Your task to perform on an android device: Clear the cart on newegg. Add usb-c to usb-b to the cart on newegg, then select checkout. Image 0: 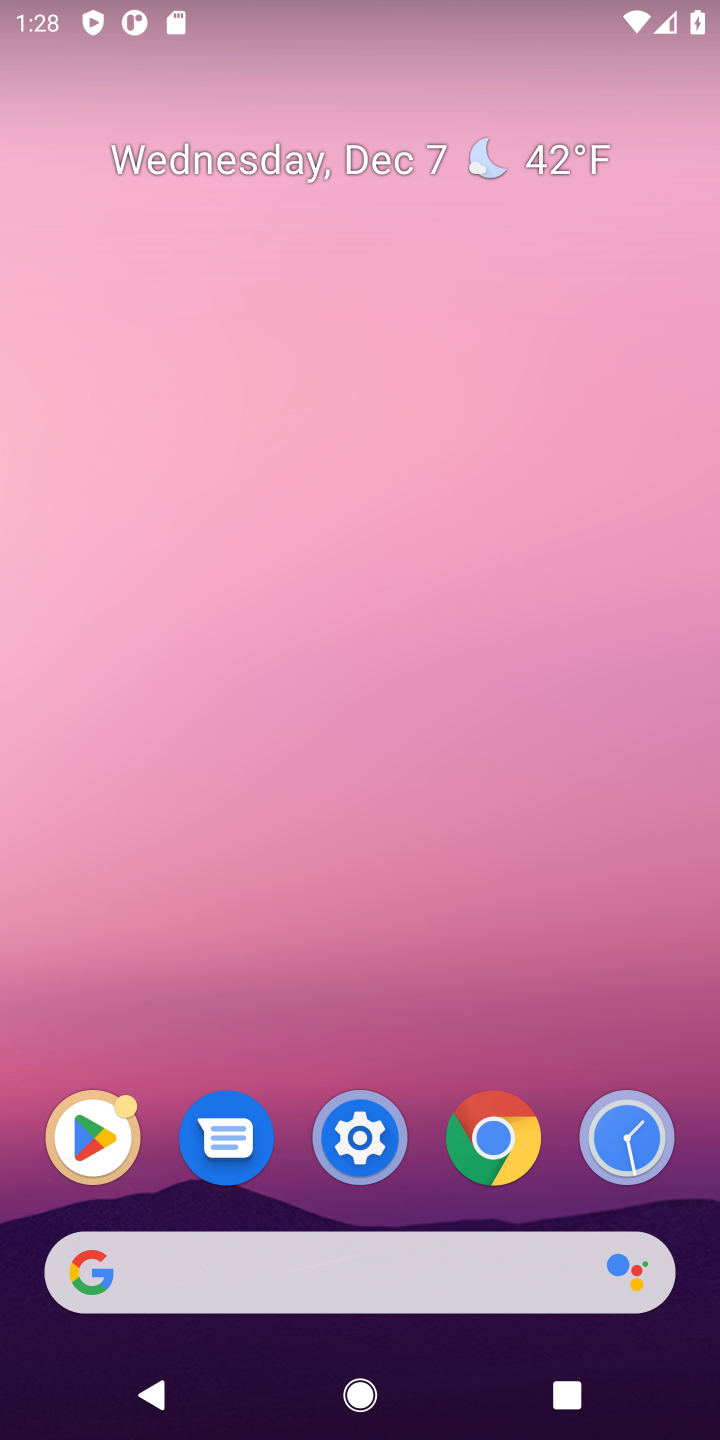
Step 0: click (379, 1311)
Your task to perform on an android device: Clear the cart on newegg. Add usb-c to usb-b to the cart on newegg, then select checkout. Image 1: 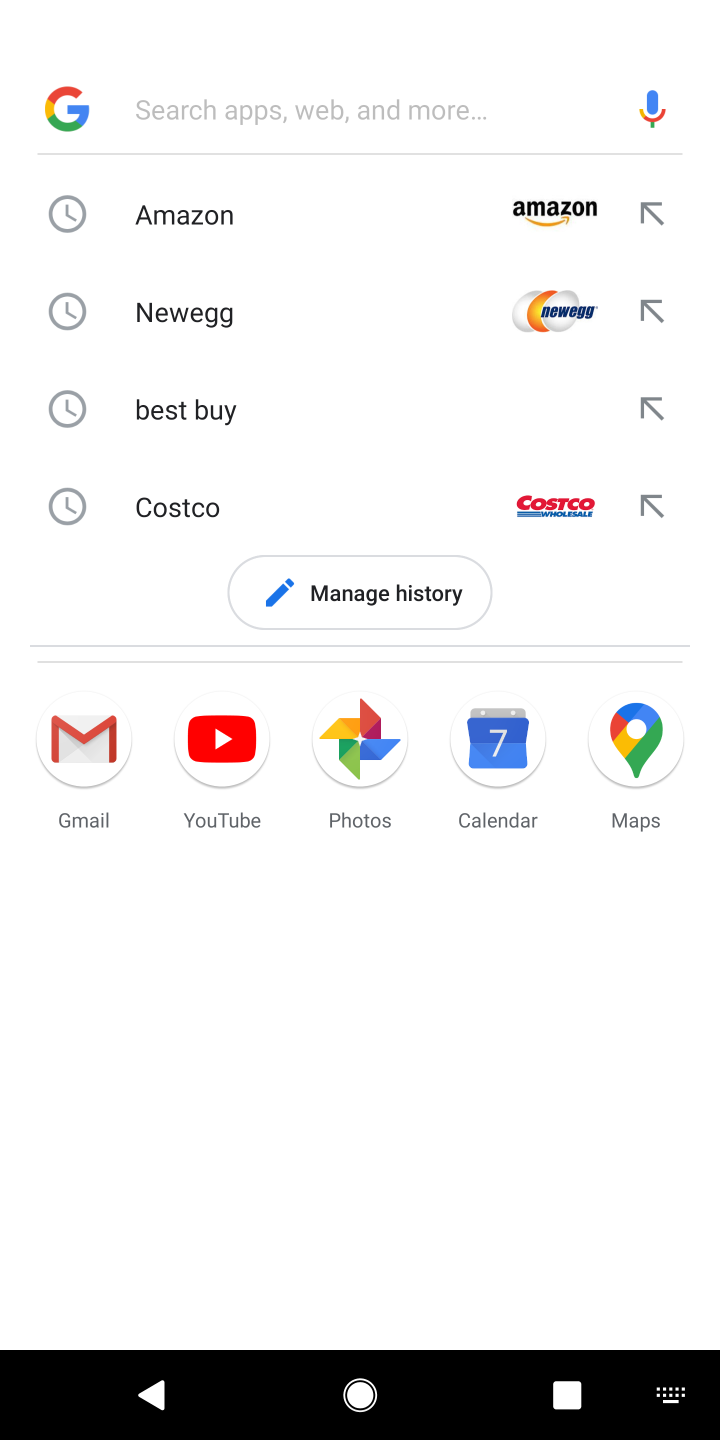
Step 1: type "newegg"
Your task to perform on an android device: Clear the cart on newegg. Add usb-c to usb-b to the cart on newegg, then select checkout. Image 2: 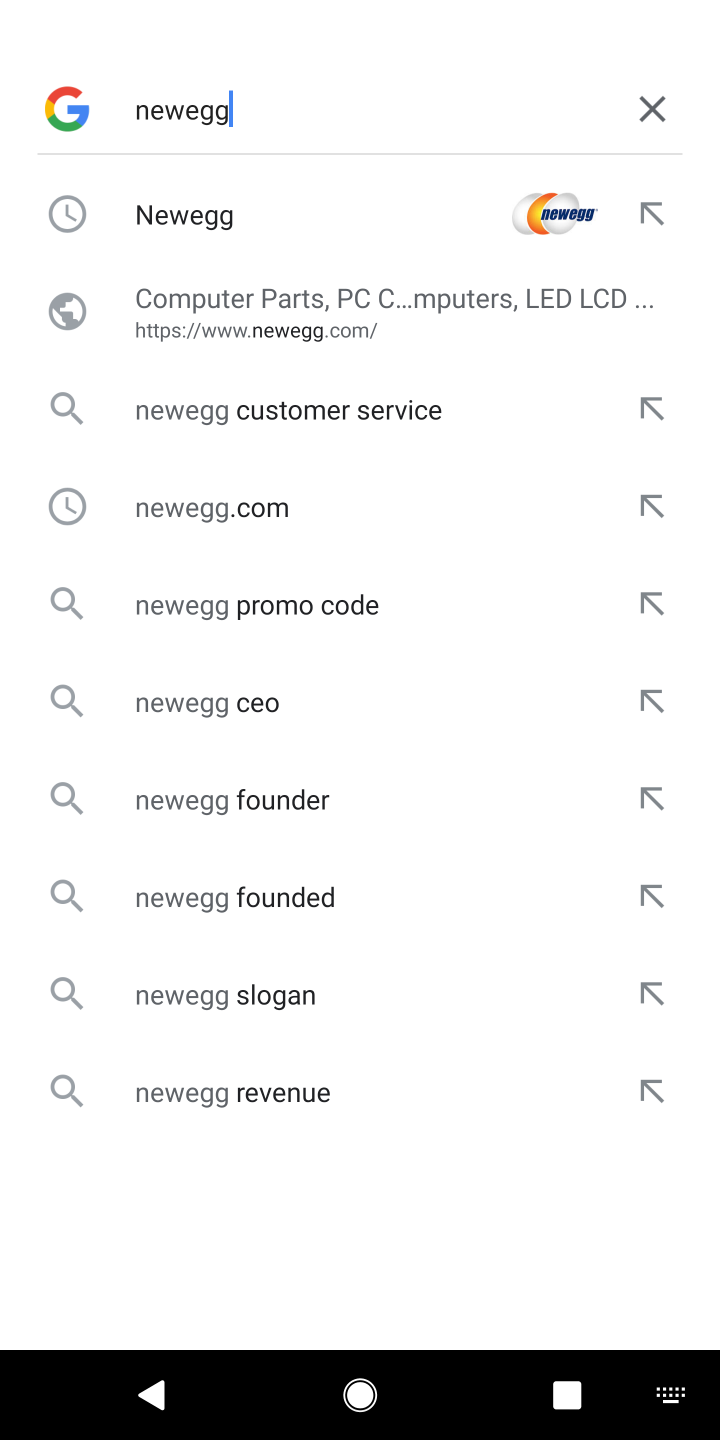
Step 2: click (197, 179)
Your task to perform on an android device: Clear the cart on newegg. Add usb-c to usb-b to the cart on newegg, then select checkout. Image 3: 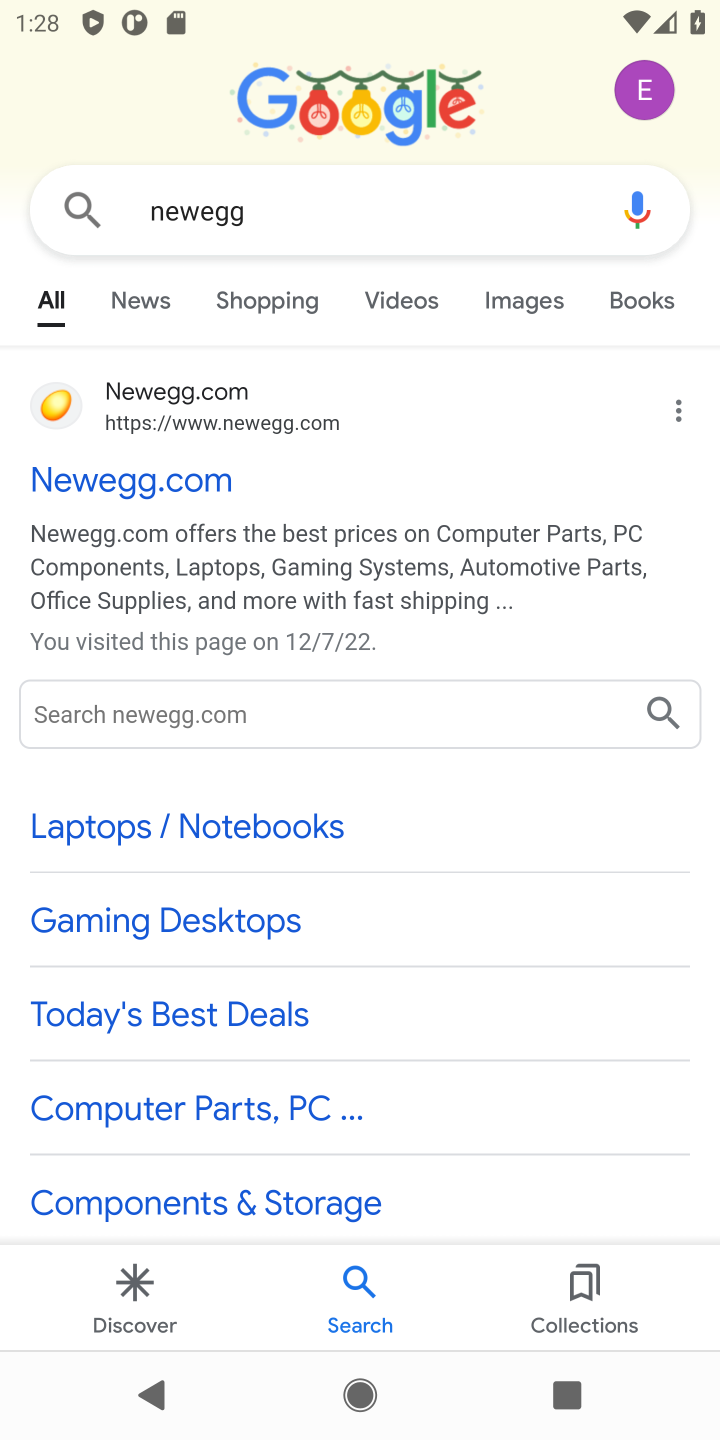
Step 3: click (164, 486)
Your task to perform on an android device: Clear the cart on newegg. Add usb-c to usb-b to the cart on newegg, then select checkout. Image 4: 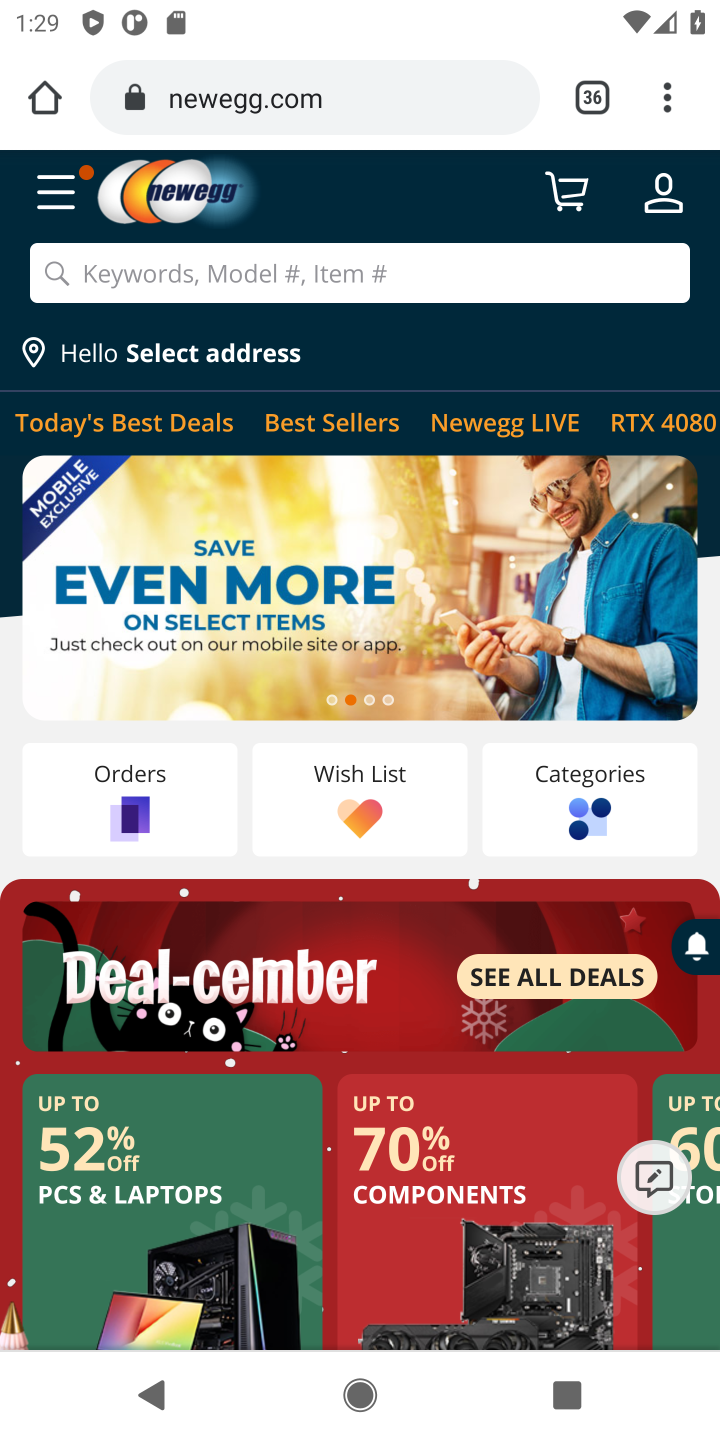
Step 4: click (212, 267)
Your task to perform on an android device: Clear the cart on newegg. Add usb-c to usb-b to the cart on newegg, then select checkout. Image 5: 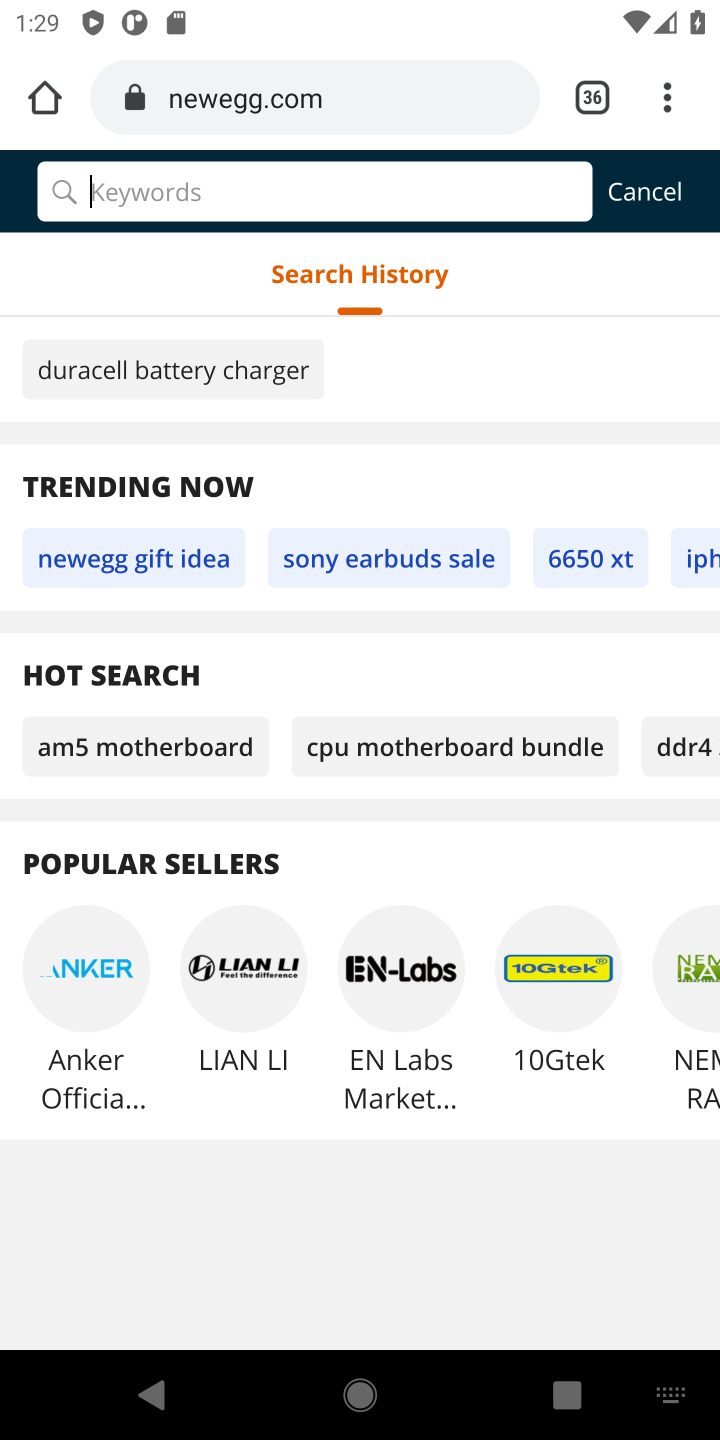
Step 5: type "usb-c to usb-b"
Your task to perform on an android device: Clear the cart on newegg. Add usb-c to usb-b to the cart on newegg, then select checkout. Image 6: 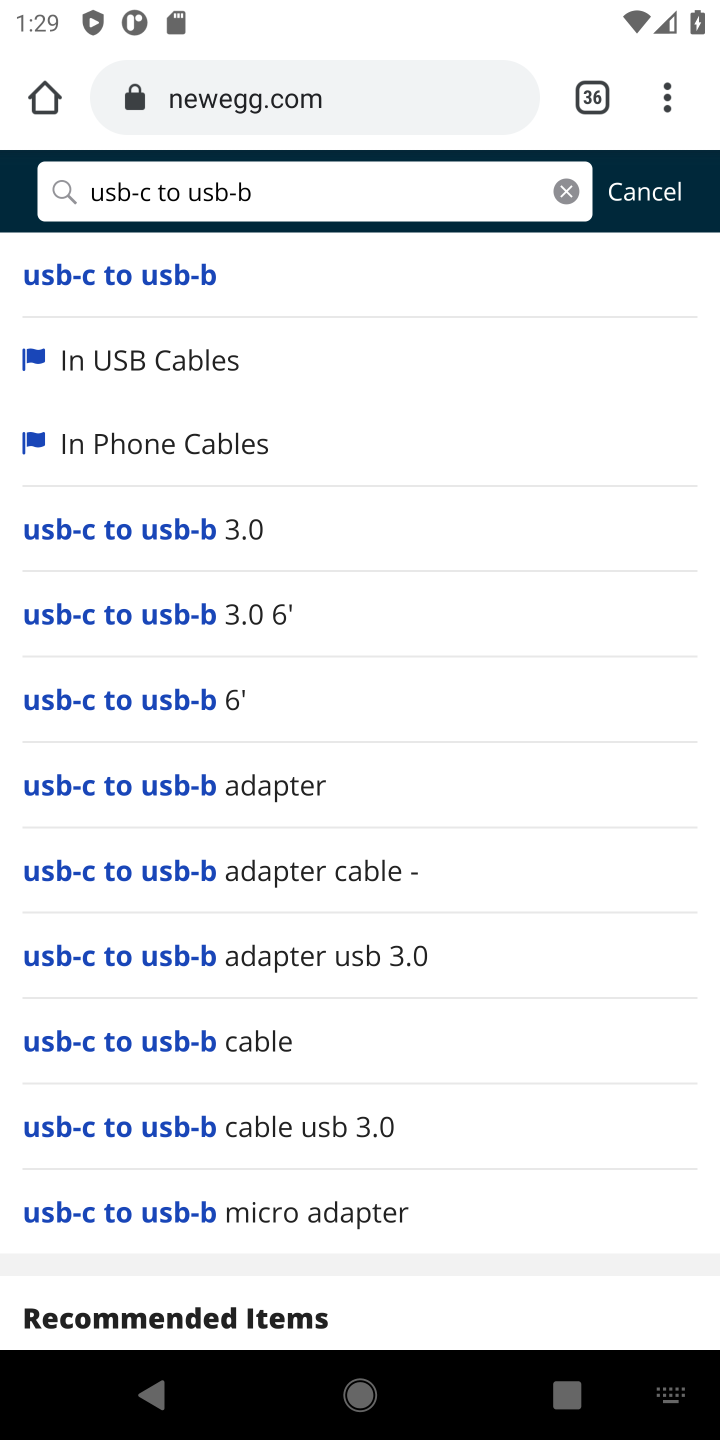
Step 6: click (257, 279)
Your task to perform on an android device: Clear the cart on newegg. Add usb-c to usb-b to the cart on newegg, then select checkout. Image 7: 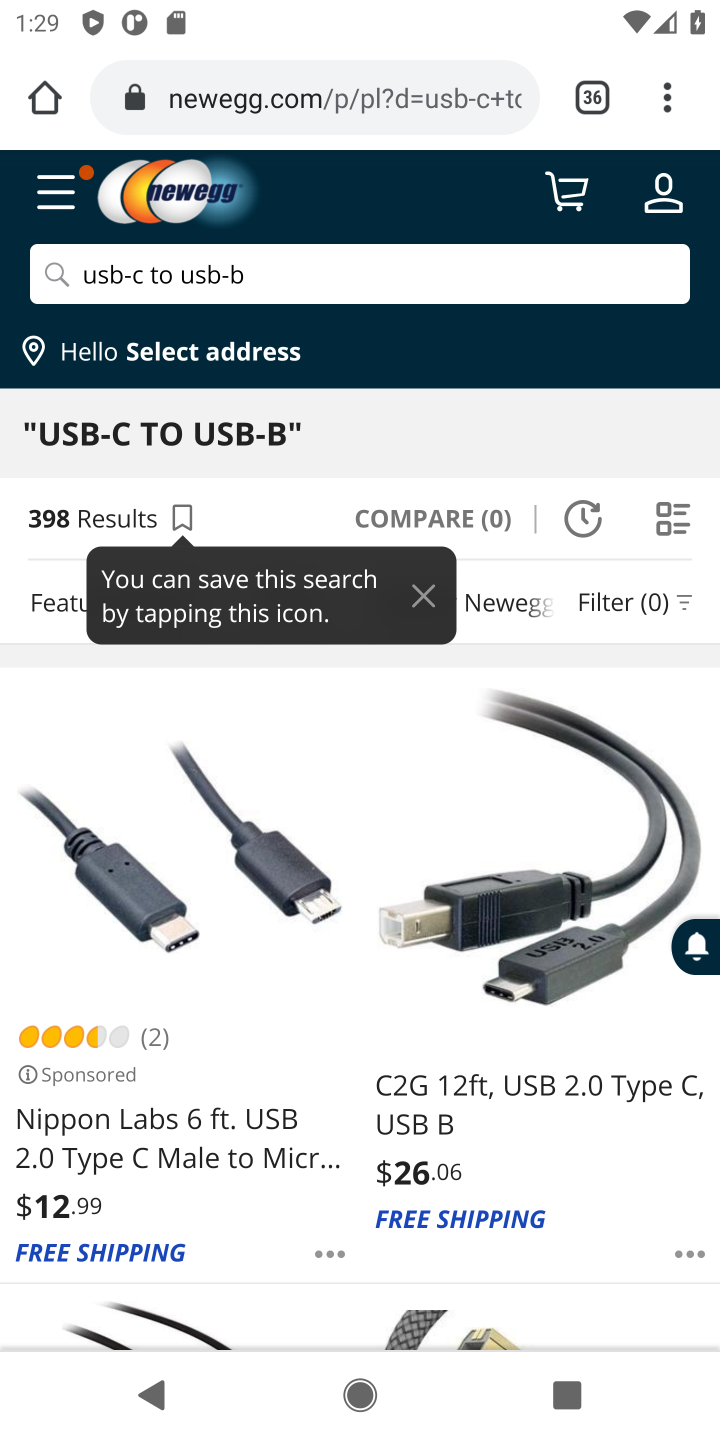
Step 7: click (202, 1059)
Your task to perform on an android device: Clear the cart on newegg. Add usb-c to usb-b to the cart on newegg, then select checkout. Image 8: 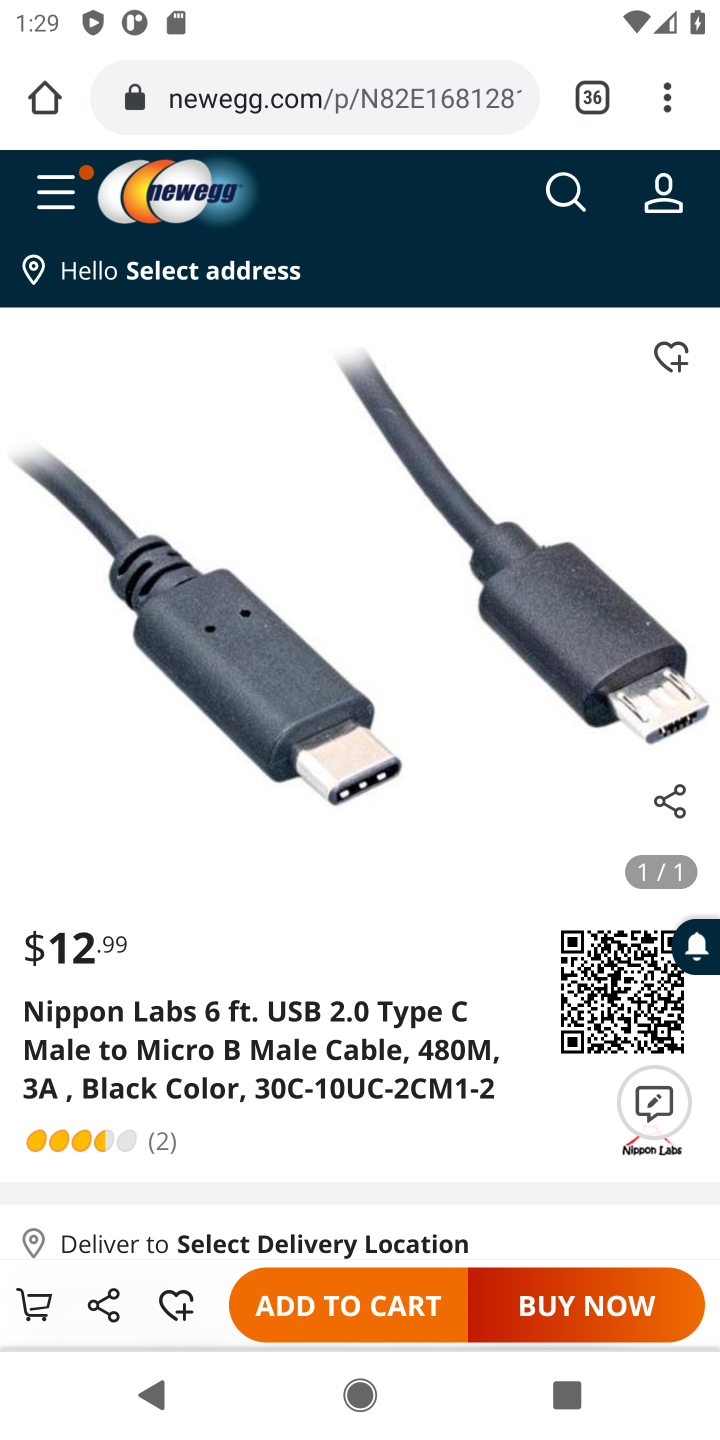
Step 8: click (299, 1307)
Your task to perform on an android device: Clear the cart on newegg. Add usb-c to usb-b to the cart on newegg, then select checkout. Image 9: 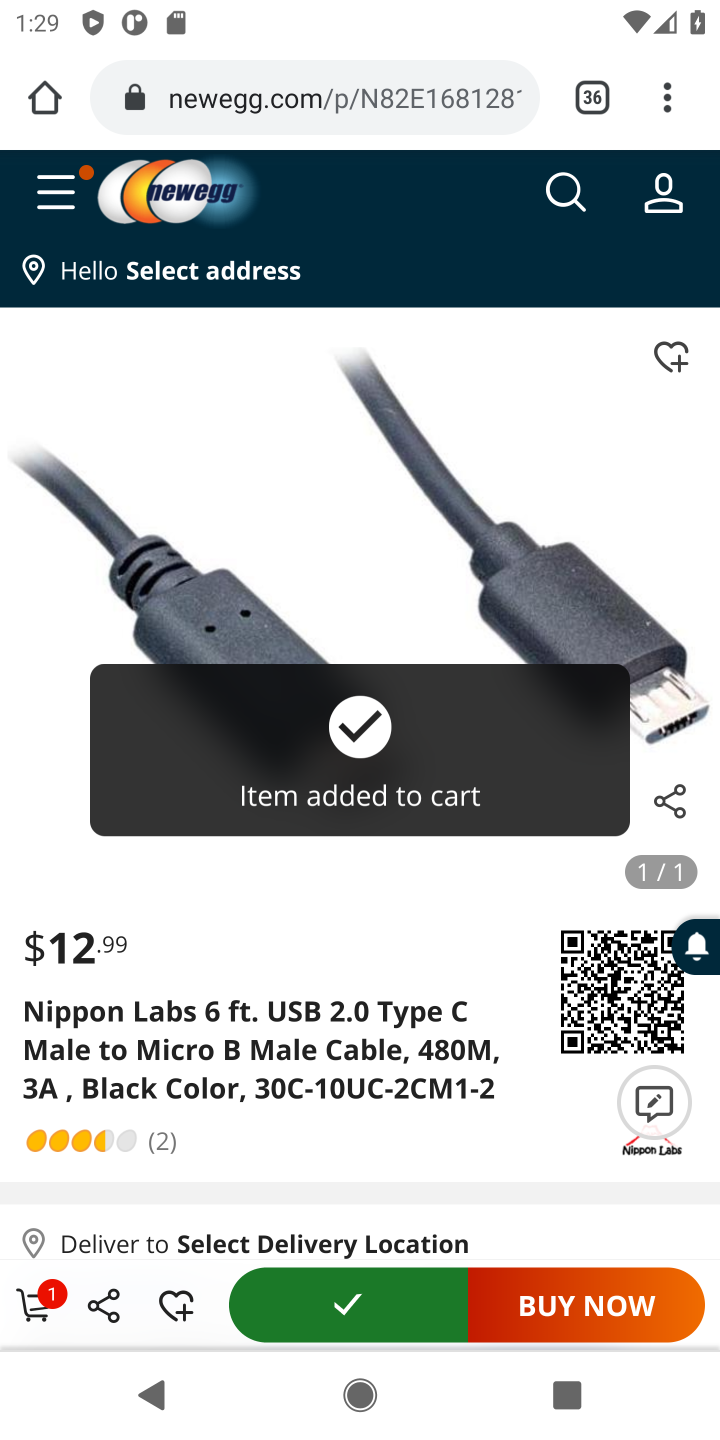
Step 9: task complete